Your task to perform on an android device: What's the weather today? Image 0: 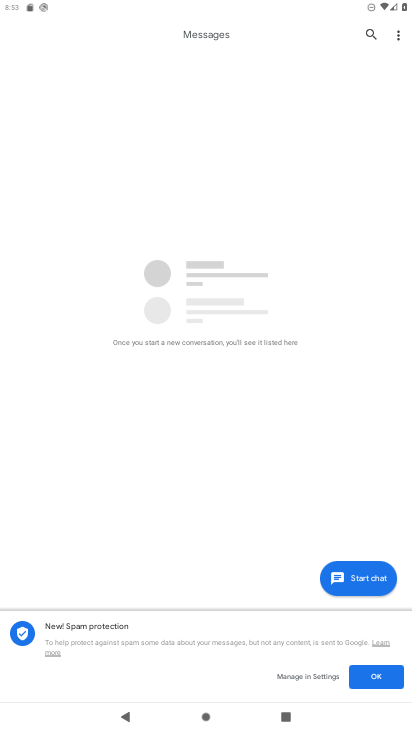
Step 0: press home button
Your task to perform on an android device: What's the weather today? Image 1: 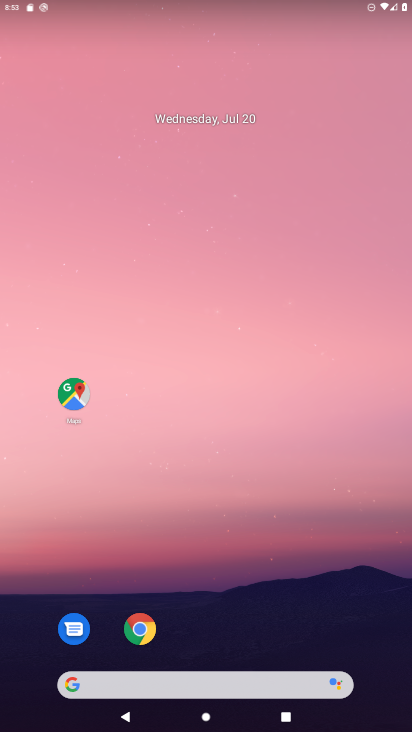
Step 1: drag from (2, 329) to (398, 330)
Your task to perform on an android device: What's the weather today? Image 2: 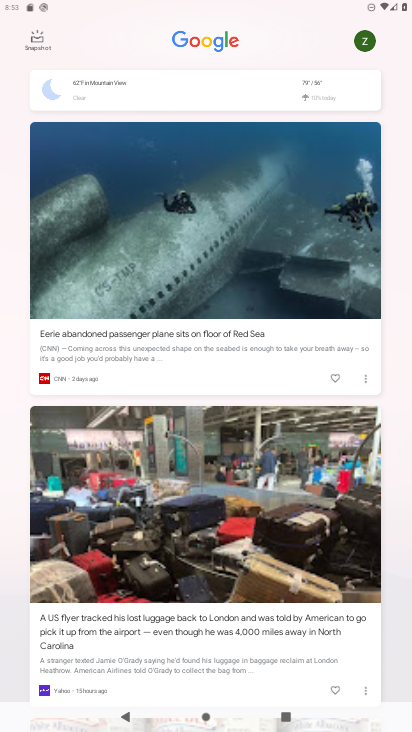
Step 2: click (308, 82)
Your task to perform on an android device: What's the weather today? Image 3: 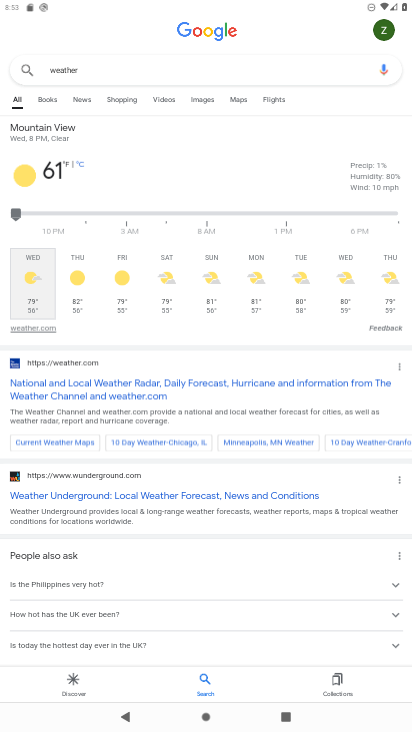
Step 3: task complete